Your task to perform on an android device: When is my next appointment? Image 0: 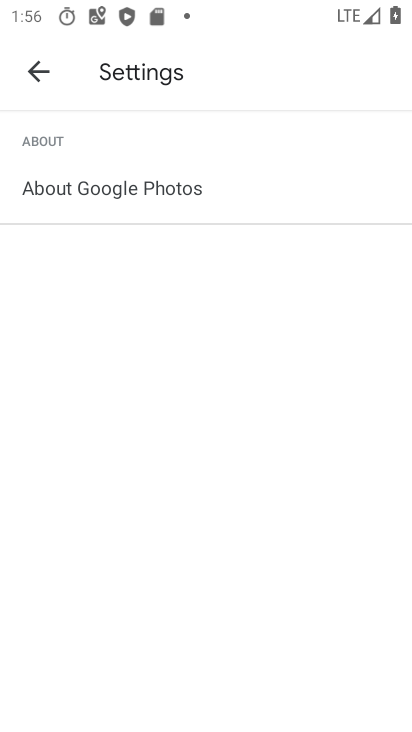
Step 0: press home button
Your task to perform on an android device: When is my next appointment? Image 1: 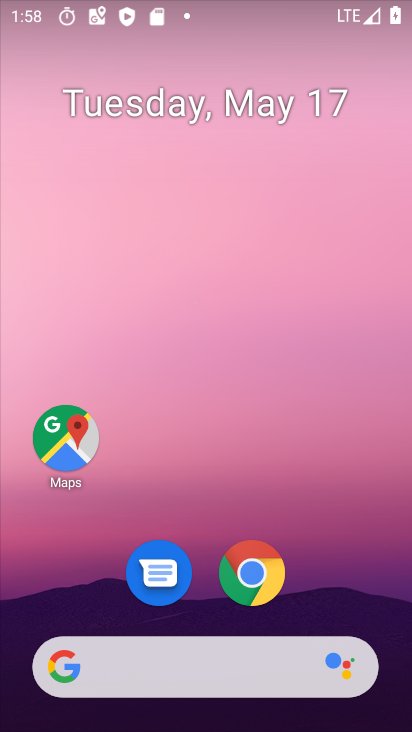
Step 1: drag from (264, 656) to (238, 151)
Your task to perform on an android device: When is my next appointment? Image 2: 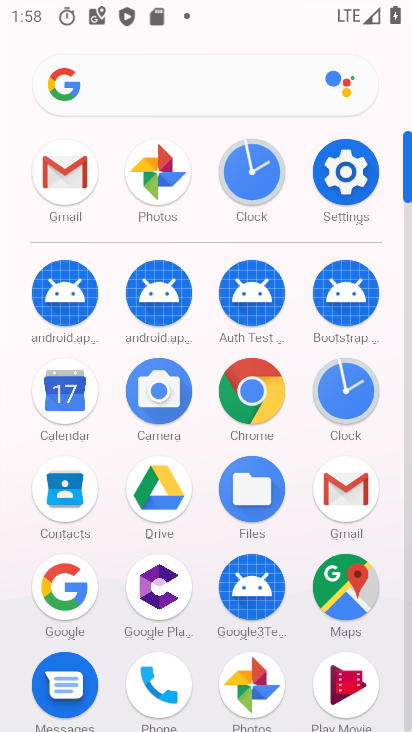
Step 2: click (68, 392)
Your task to perform on an android device: When is my next appointment? Image 3: 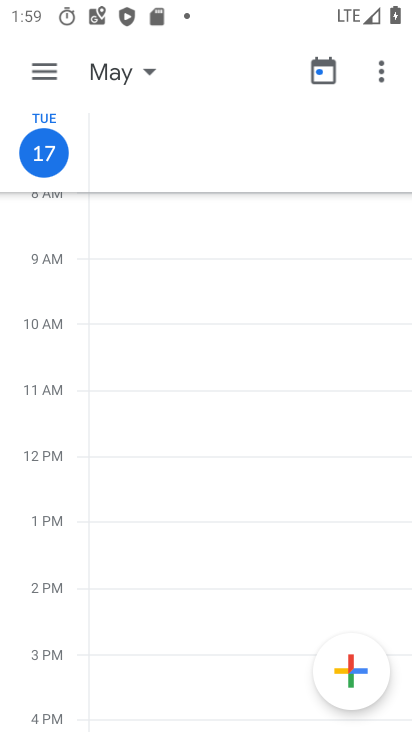
Step 3: click (46, 75)
Your task to perform on an android device: When is my next appointment? Image 4: 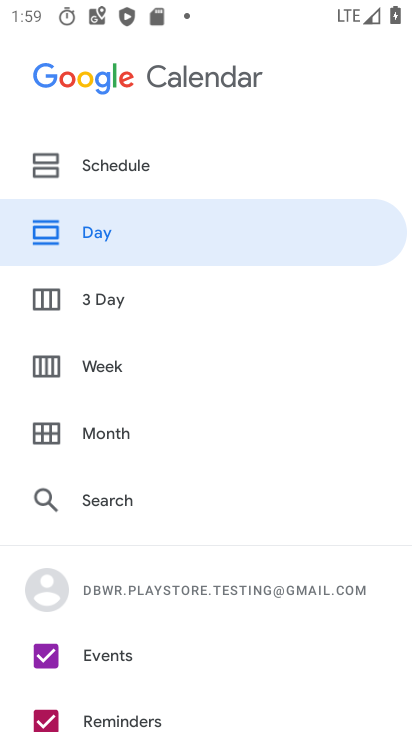
Step 4: click (236, 237)
Your task to perform on an android device: When is my next appointment? Image 5: 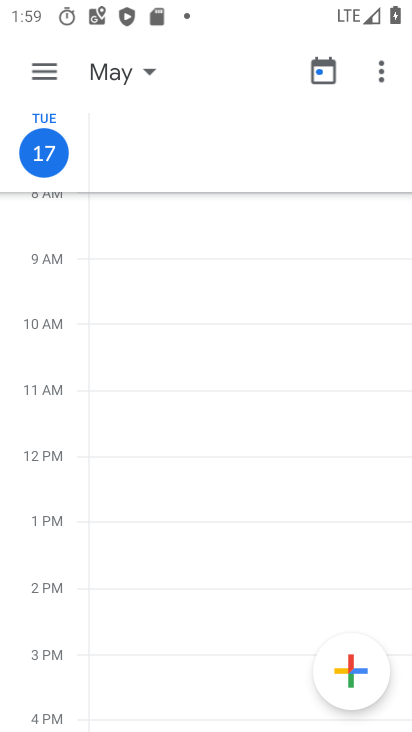
Step 5: task complete